Your task to perform on an android device: Open Yahoo.com Image 0: 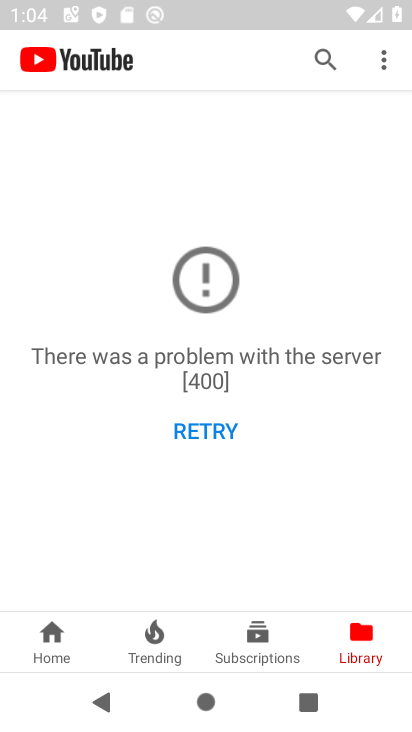
Step 0: click (193, 437)
Your task to perform on an android device: Open Yahoo.com Image 1: 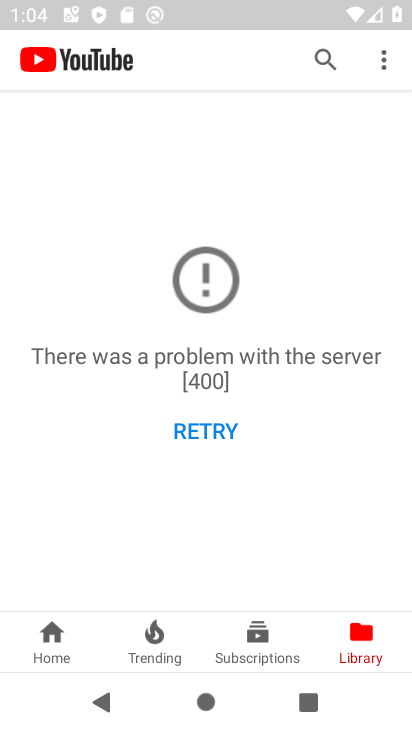
Step 1: press home button
Your task to perform on an android device: Open Yahoo.com Image 2: 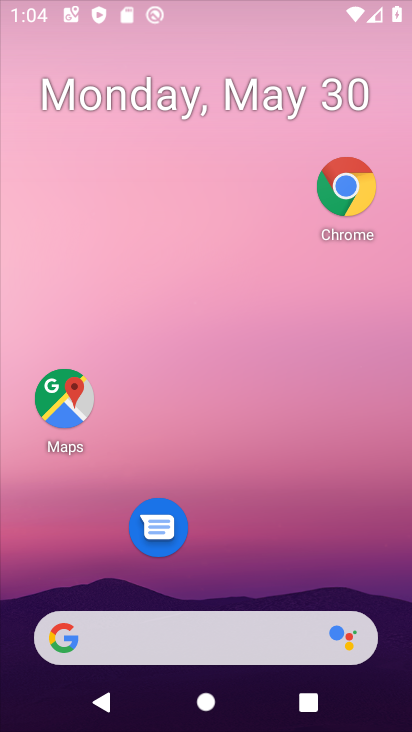
Step 2: drag from (205, 537) to (281, 180)
Your task to perform on an android device: Open Yahoo.com Image 3: 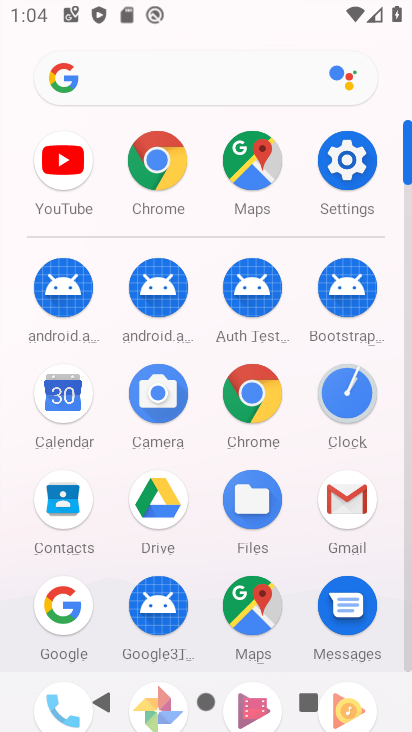
Step 3: click (157, 78)
Your task to perform on an android device: Open Yahoo.com Image 4: 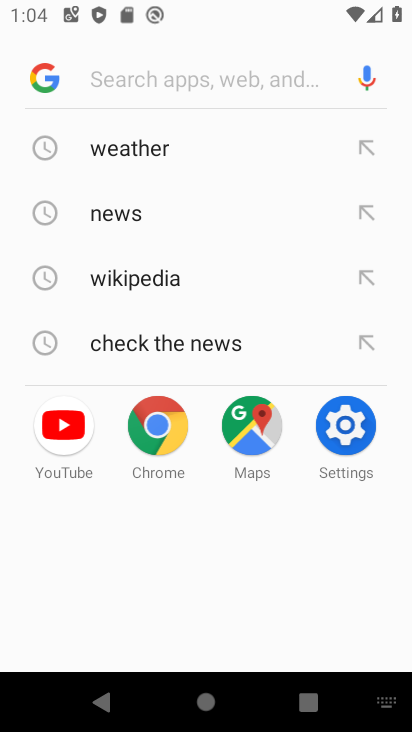
Step 4: type "Yahoo.com"
Your task to perform on an android device: Open Yahoo.com Image 5: 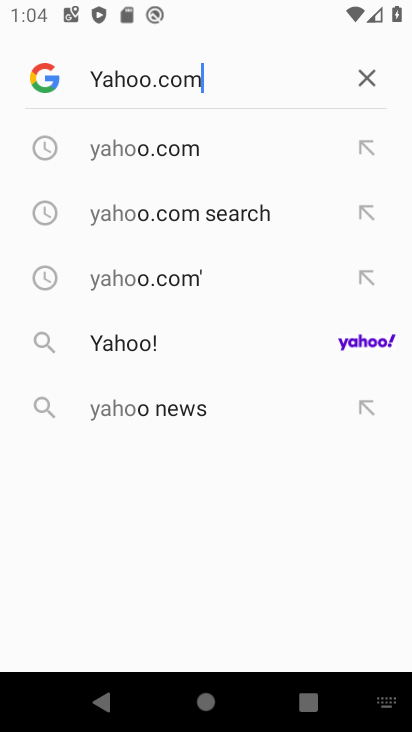
Step 5: type ""
Your task to perform on an android device: Open Yahoo.com Image 6: 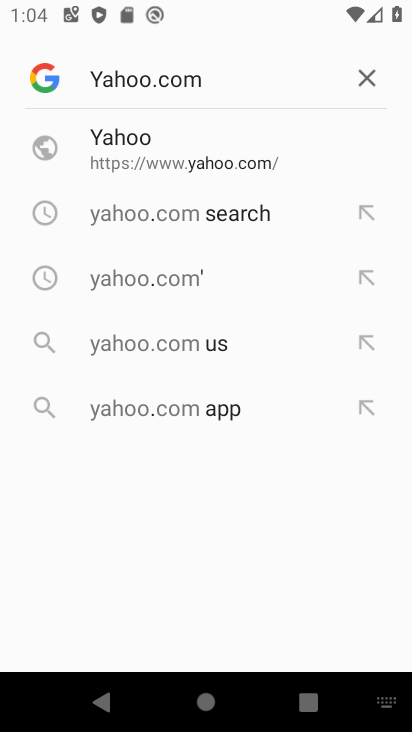
Step 6: click (125, 159)
Your task to perform on an android device: Open Yahoo.com Image 7: 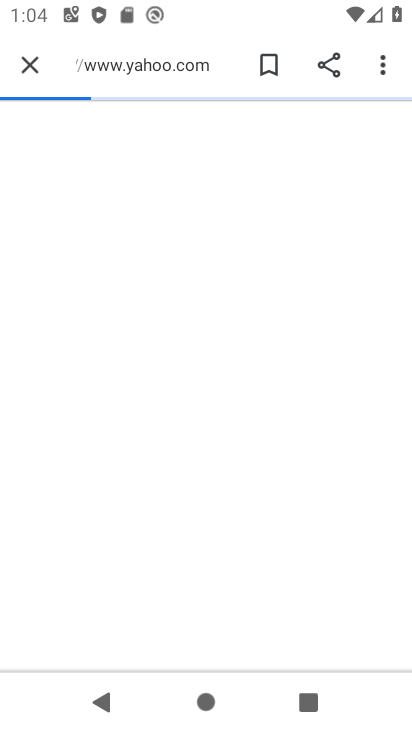
Step 7: task complete